Your task to perform on an android device: Go to settings Image 0: 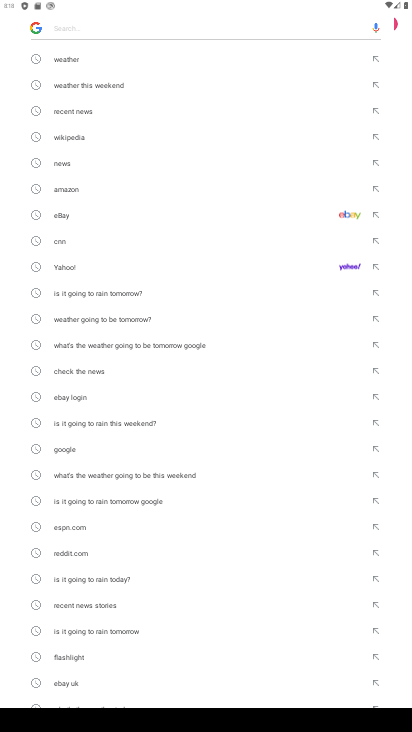
Step 0: press home button
Your task to perform on an android device: Go to settings Image 1: 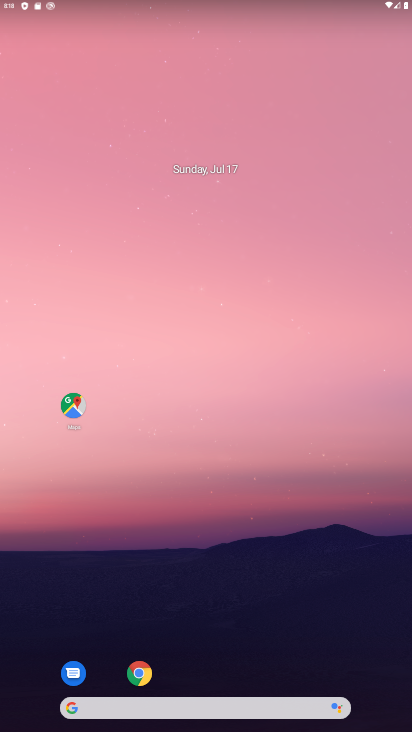
Step 1: drag from (299, 598) to (218, 15)
Your task to perform on an android device: Go to settings Image 2: 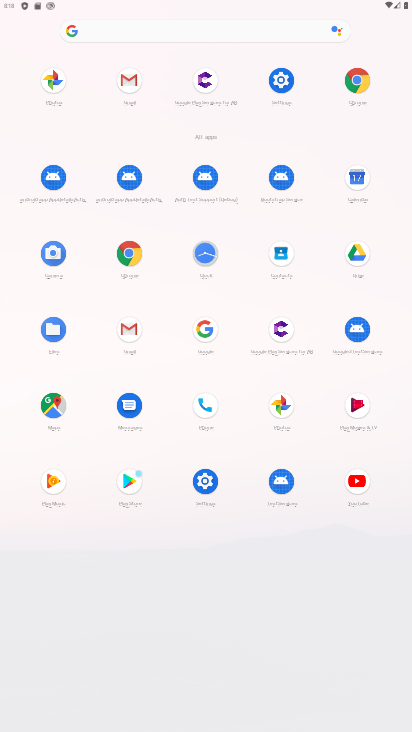
Step 2: click (278, 81)
Your task to perform on an android device: Go to settings Image 3: 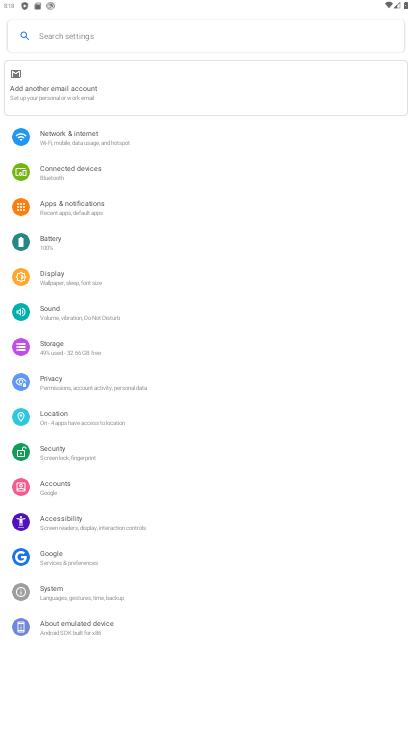
Step 3: task complete